Your task to perform on an android device: change the clock display to show seconds Image 0: 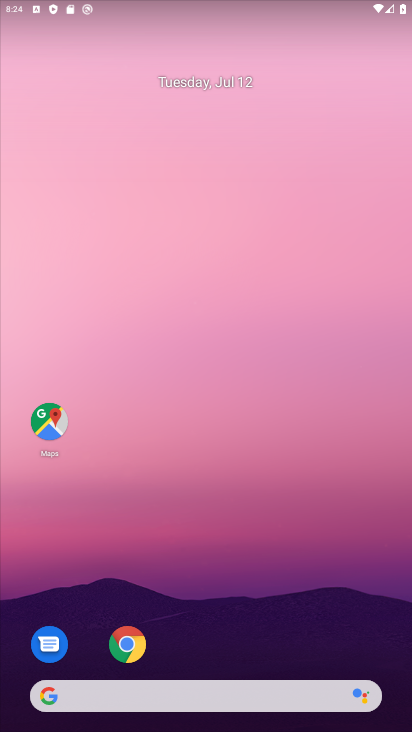
Step 0: drag from (362, 637) to (301, 229)
Your task to perform on an android device: change the clock display to show seconds Image 1: 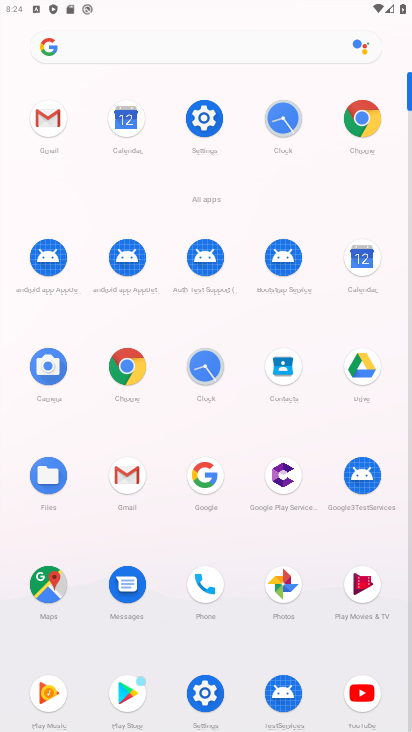
Step 1: click (206, 368)
Your task to perform on an android device: change the clock display to show seconds Image 2: 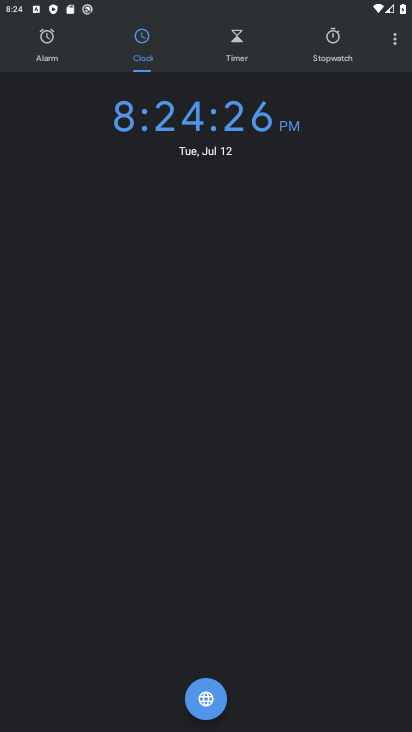
Step 2: click (394, 48)
Your task to perform on an android device: change the clock display to show seconds Image 3: 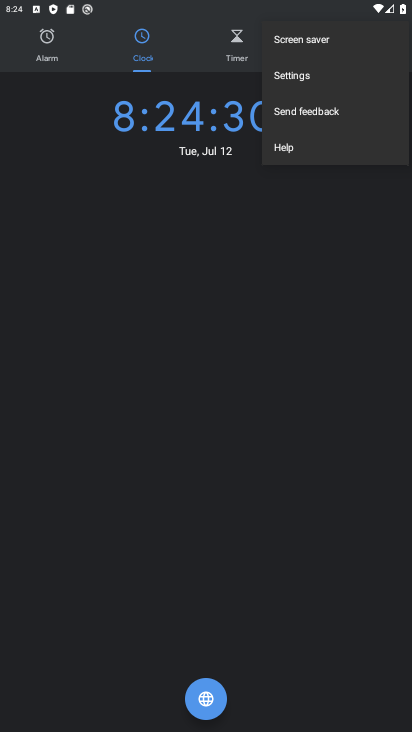
Step 3: click (298, 75)
Your task to perform on an android device: change the clock display to show seconds Image 4: 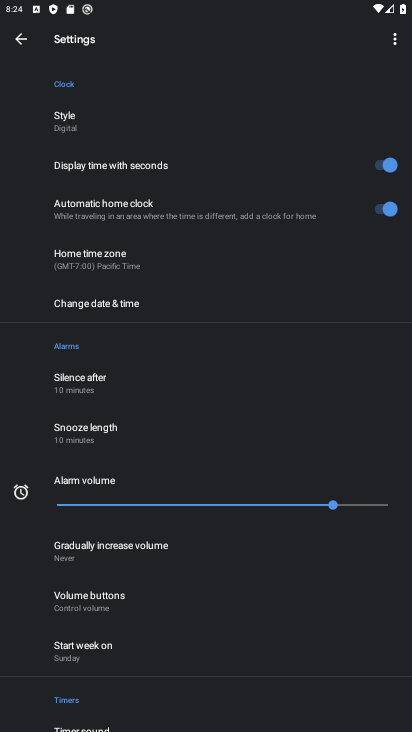
Step 4: task complete